Your task to perform on an android device: Go to Reddit.com Image 0: 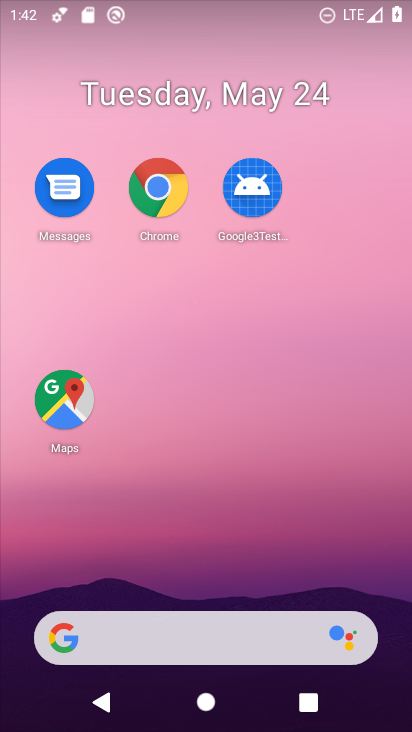
Step 0: drag from (246, 563) to (274, 103)
Your task to perform on an android device: Go to Reddit.com Image 1: 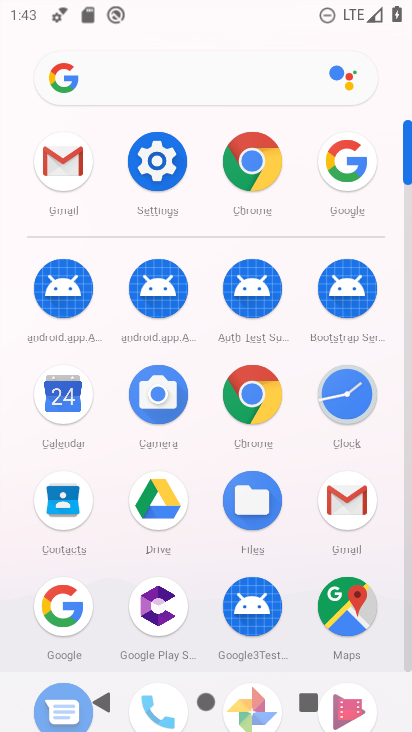
Step 1: click (253, 153)
Your task to perform on an android device: Go to Reddit.com Image 2: 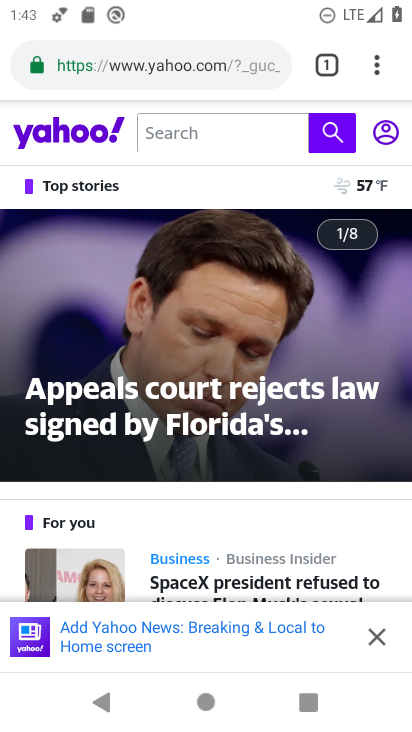
Step 2: click (181, 77)
Your task to perform on an android device: Go to Reddit.com Image 3: 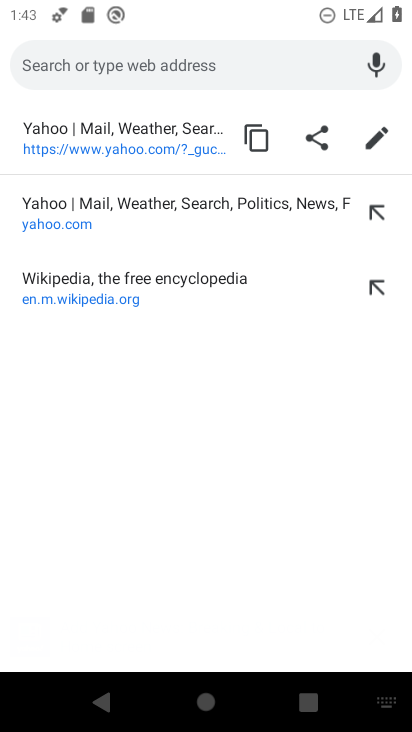
Step 3: type "www.reddit.com"
Your task to perform on an android device: Go to Reddit.com Image 4: 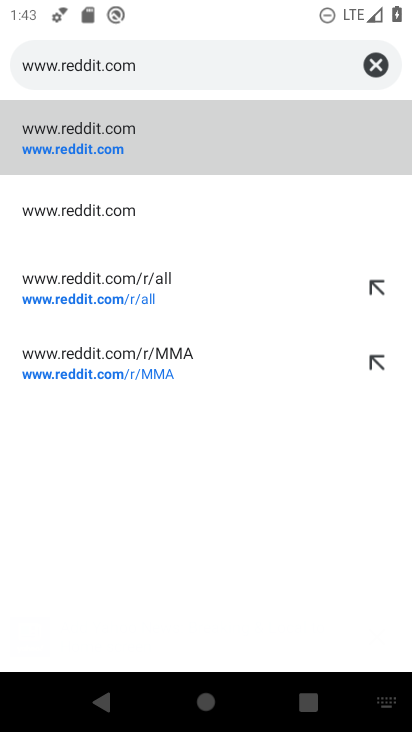
Step 4: click (94, 141)
Your task to perform on an android device: Go to Reddit.com Image 5: 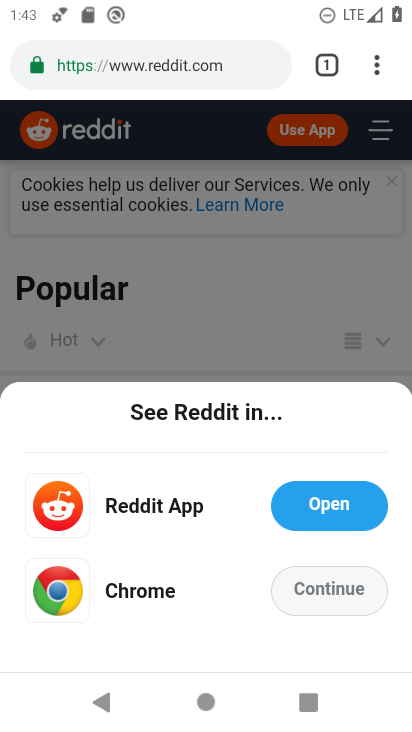
Step 5: task complete